Your task to perform on an android device: Go to calendar. Show me events next week Image 0: 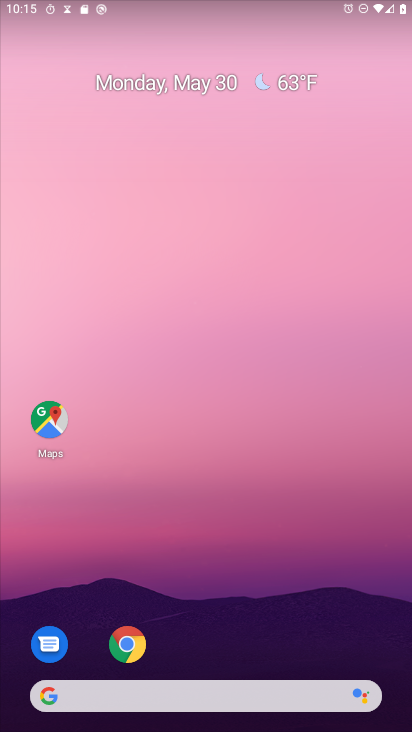
Step 0: drag from (205, 647) to (268, 43)
Your task to perform on an android device: Go to calendar. Show me events next week Image 1: 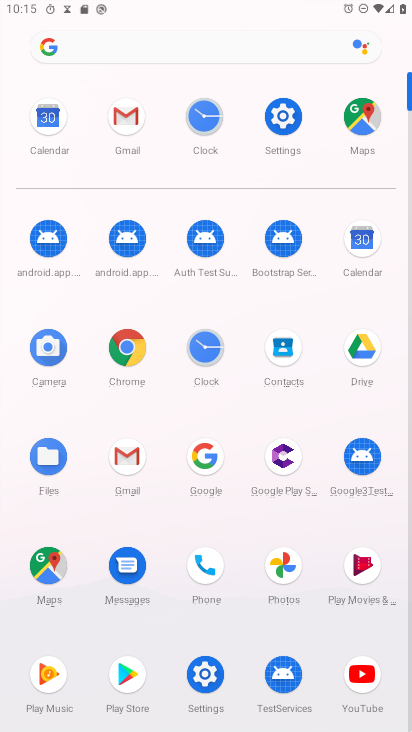
Step 1: click (365, 238)
Your task to perform on an android device: Go to calendar. Show me events next week Image 2: 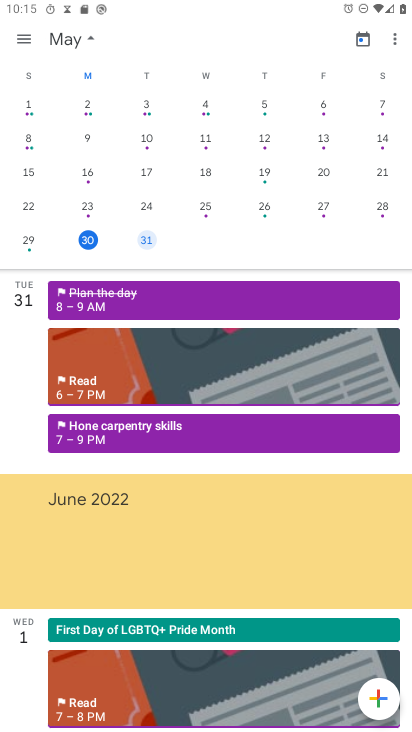
Step 2: click (146, 246)
Your task to perform on an android device: Go to calendar. Show me events next week Image 3: 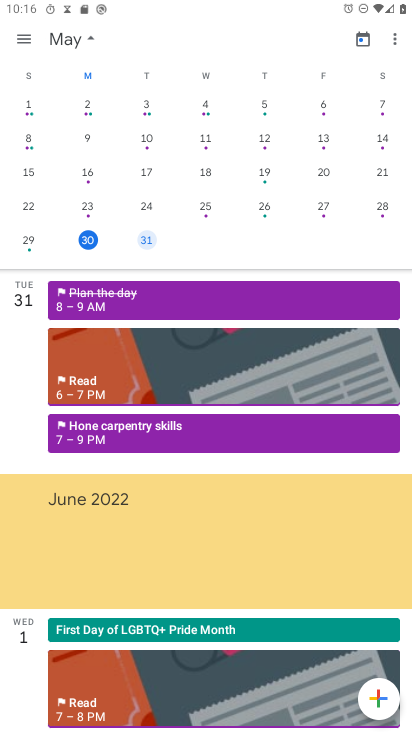
Step 3: task complete